Your task to perform on an android device: Go to Yahoo.com Image 0: 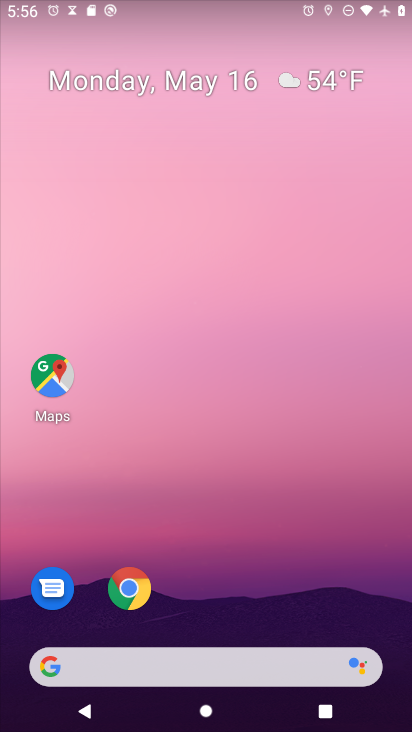
Step 0: drag from (245, 528) to (160, 24)
Your task to perform on an android device: Go to Yahoo.com Image 1: 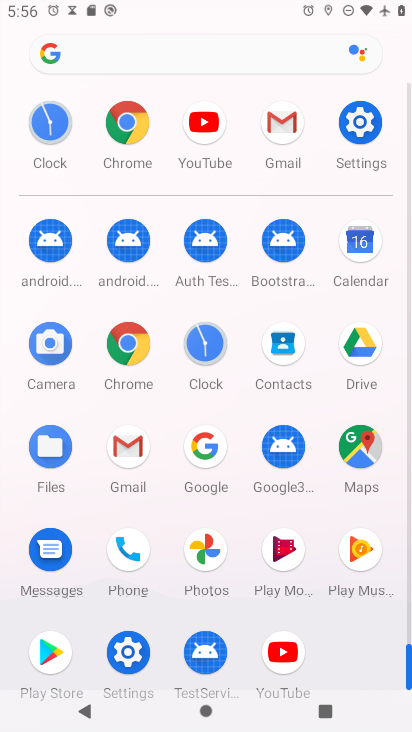
Step 1: drag from (8, 528) to (0, 279)
Your task to perform on an android device: Go to Yahoo.com Image 2: 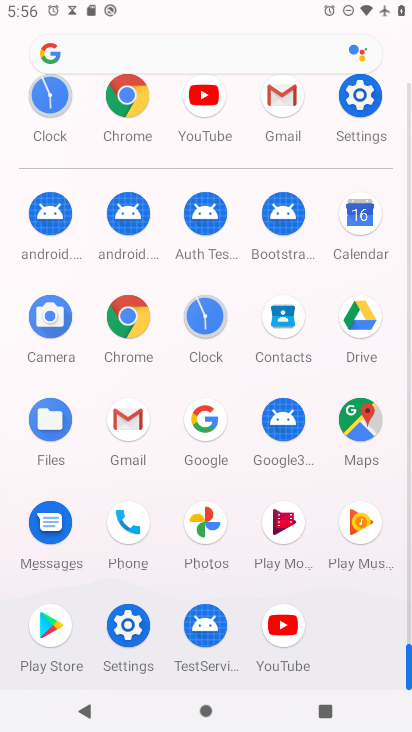
Step 2: drag from (20, 442) to (17, 201)
Your task to perform on an android device: Go to Yahoo.com Image 3: 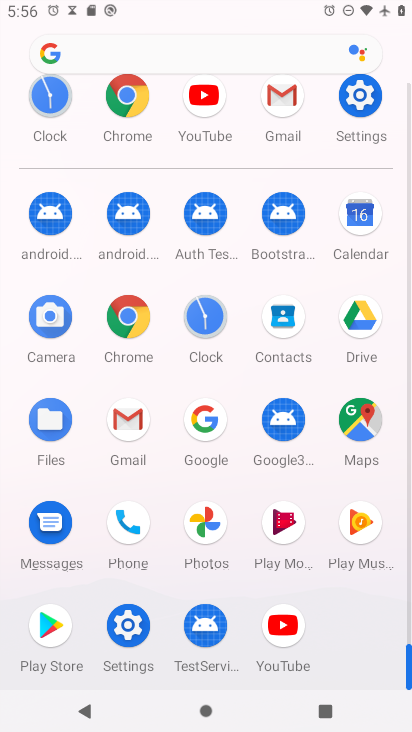
Step 3: click (124, 309)
Your task to perform on an android device: Go to Yahoo.com Image 4: 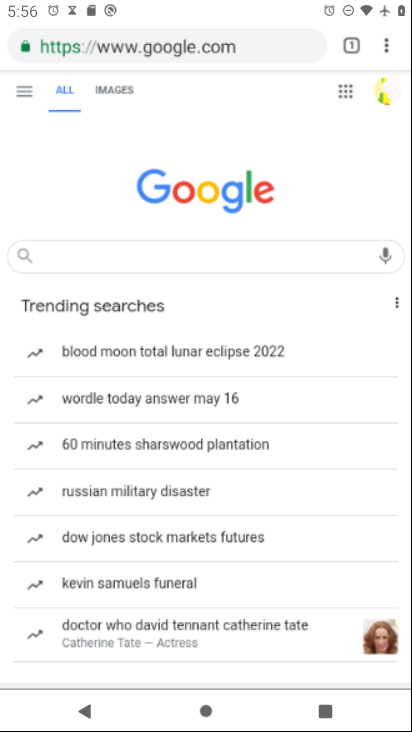
Step 4: click (163, 46)
Your task to perform on an android device: Go to Yahoo.com Image 5: 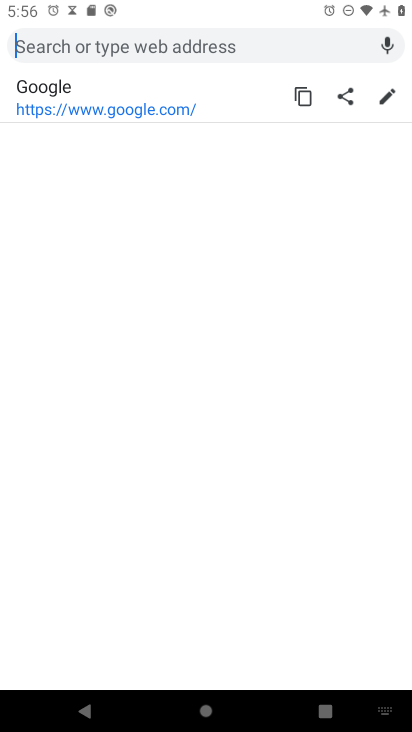
Step 5: type "Yahoo.com"
Your task to perform on an android device: Go to Yahoo.com Image 6: 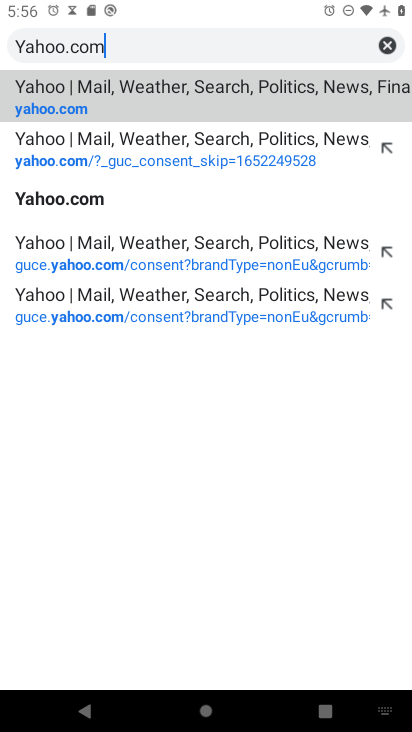
Step 6: click (149, 81)
Your task to perform on an android device: Go to Yahoo.com Image 7: 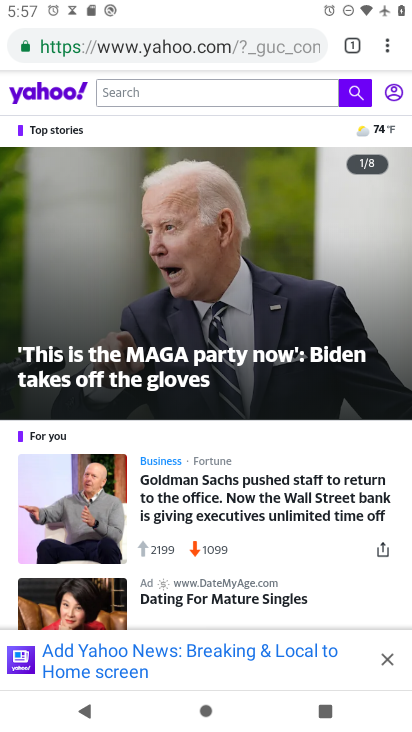
Step 7: task complete